Your task to perform on an android device: snooze an email in the gmail app Image 0: 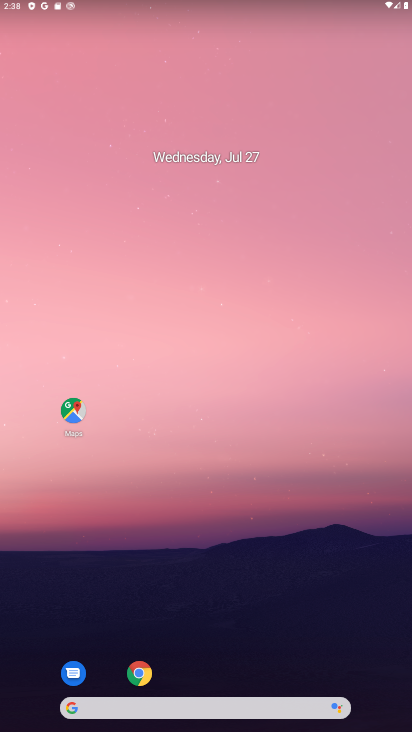
Step 0: drag from (178, 728) to (175, 289)
Your task to perform on an android device: snooze an email in the gmail app Image 1: 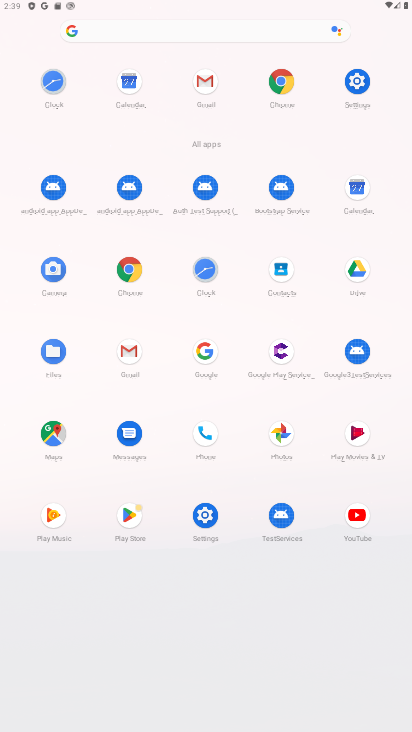
Step 1: click (127, 357)
Your task to perform on an android device: snooze an email in the gmail app Image 2: 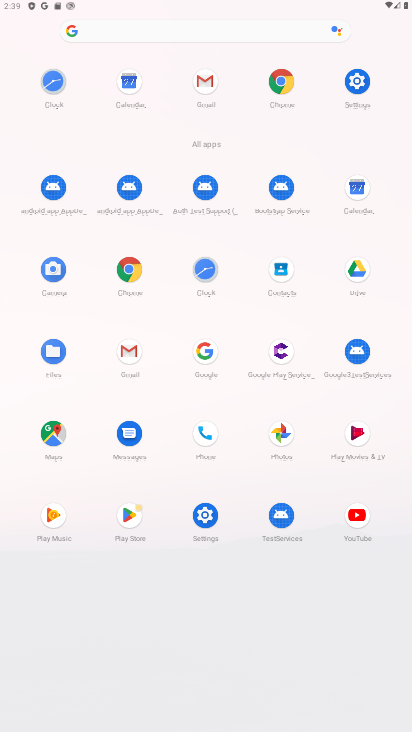
Step 2: click (127, 357)
Your task to perform on an android device: snooze an email in the gmail app Image 3: 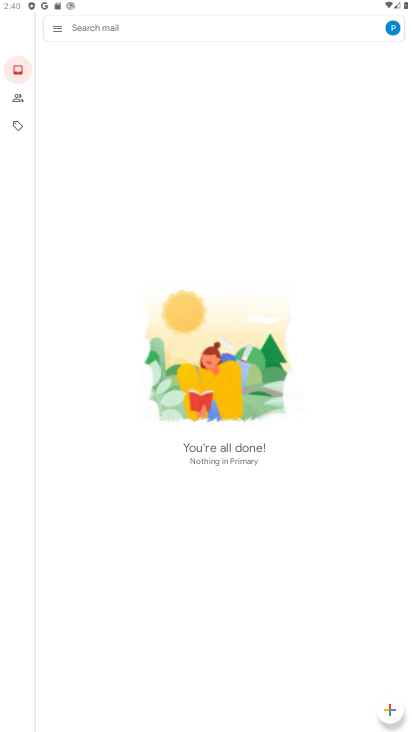
Step 3: task complete